Your task to perform on an android device: Open calendar and show me the second week of next month Image 0: 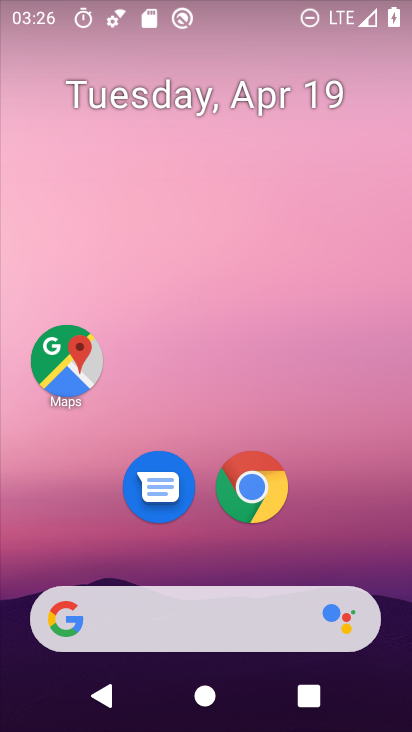
Step 0: drag from (176, 469) to (321, 13)
Your task to perform on an android device: Open calendar and show me the second week of next month Image 1: 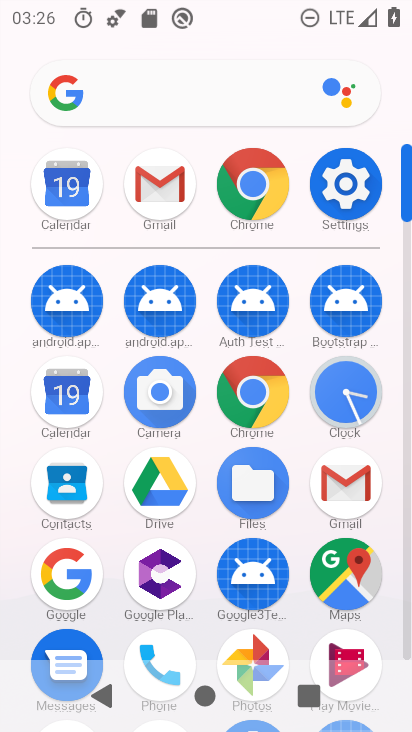
Step 1: click (64, 405)
Your task to perform on an android device: Open calendar and show me the second week of next month Image 2: 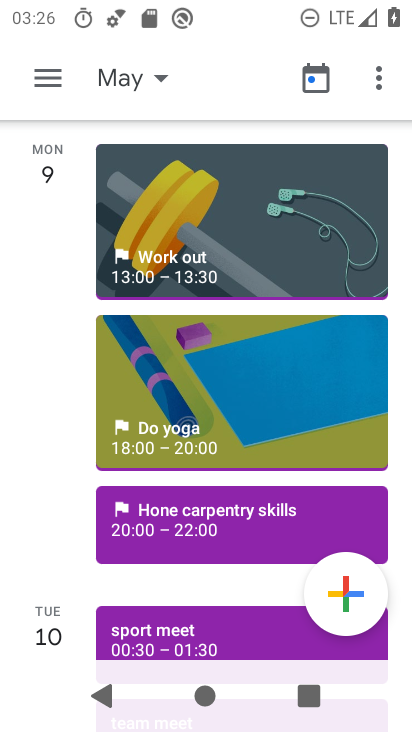
Step 2: click (152, 72)
Your task to perform on an android device: Open calendar and show me the second week of next month Image 3: 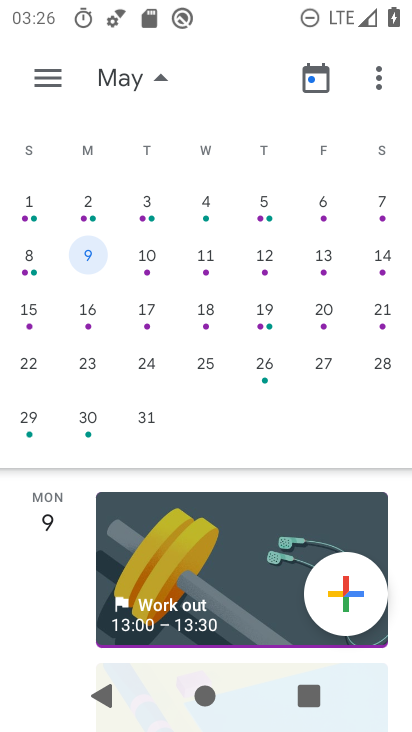
Step 3: click (85, 255)
Your task to perform on an android device: Open calendar and show me the second week of next month Image 4: 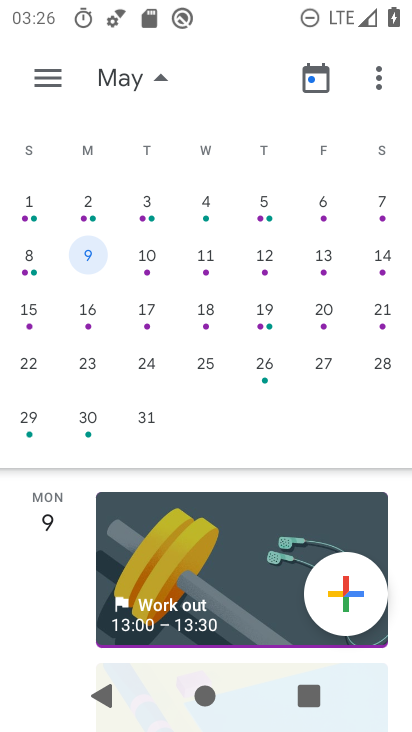
Step 4: task complete